Your task to perform on an android device: see tabs open on other devices in the chrome app Image 0: 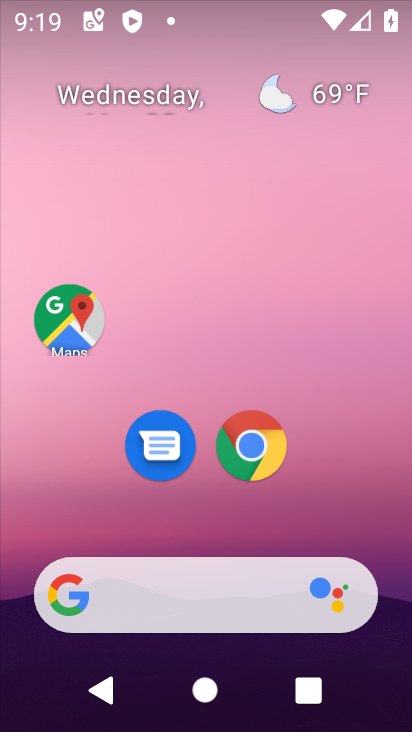
Step 0: click (264, 428)
Your task to perform on an android device: see tabs open on other devices in the chrome app Image 1: 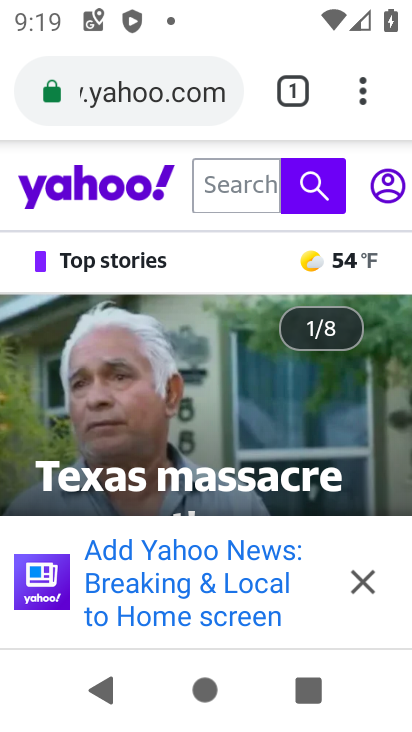
Step 1: drag from (368, 92) to (181, 422)
Your task to perform on an android device: see tabs open on other devices in the chrome app Image 2: 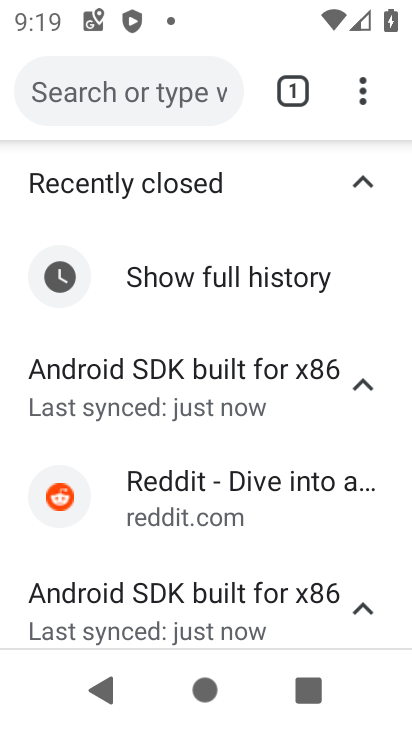
Step 2: drag from (340, 437) to (306, 249)
Your task to perform on an android device: see tabs open on other devices in the chrome app Image 3: 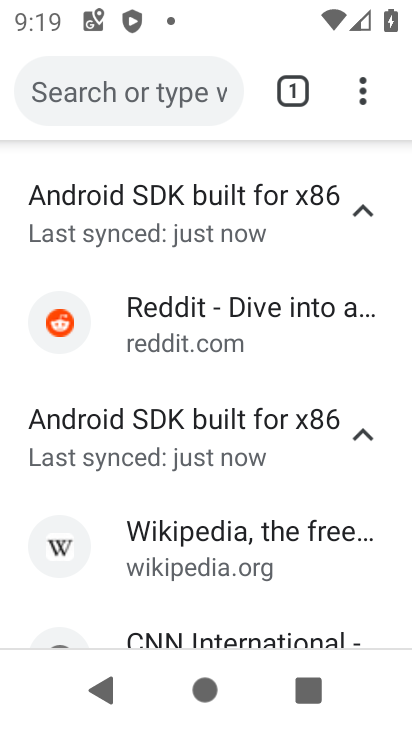
Step 3: click (358, 193)
Your task to perform on an android device: see tabs open on other devices in the chrome app Image 4: 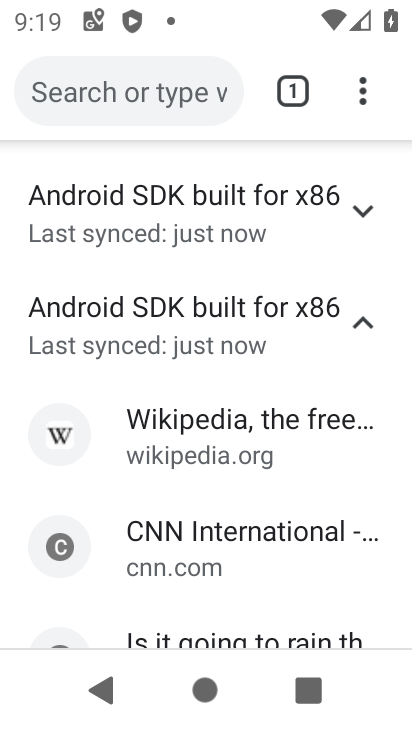
Step 4: click (366, 319)
Your task to perform on an android device: see tabs open on other devices in the chrome app Image 5: 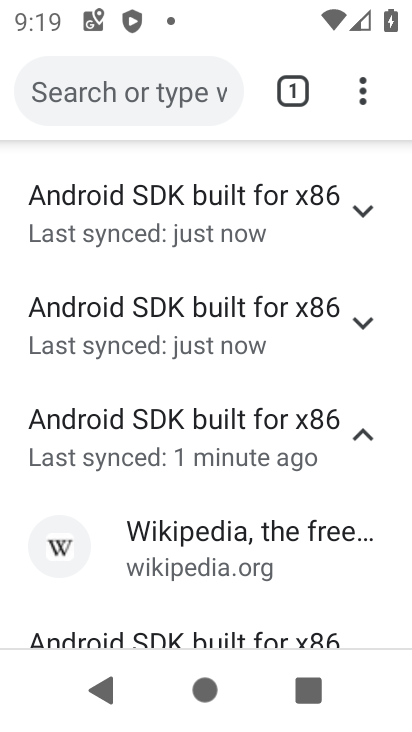
Step 5: task complete